Your task to perform on an android device: toggle data saver in the chrome app Image 0: 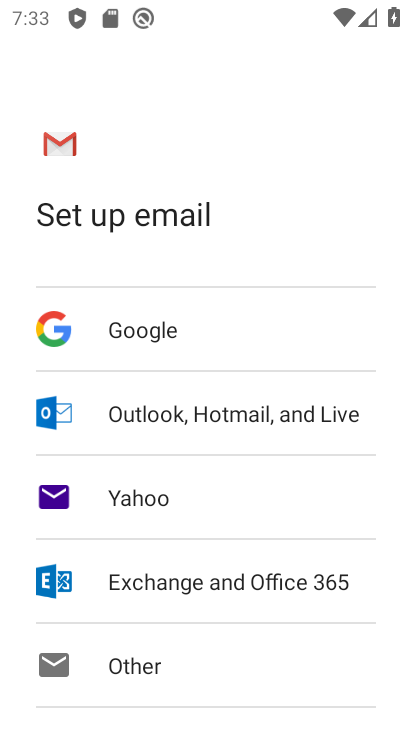
Step 0: press home button
Your task to perform on an android device: toggle data saver in the chrome app Image 1: 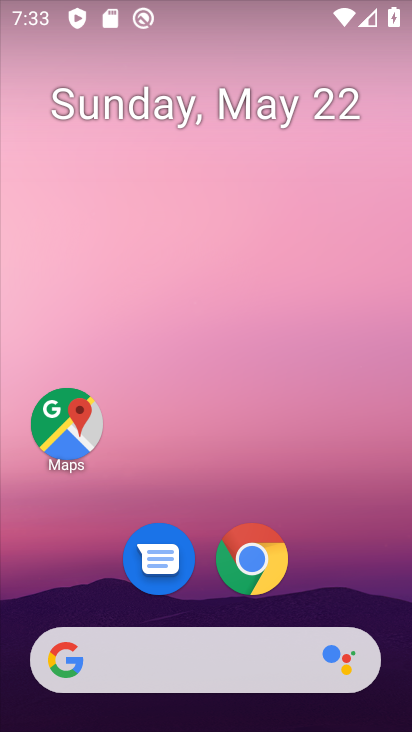
Step 1: click (247, 582)
Your task to perform on an android device: toggle data saver in the chrome app Image 2: 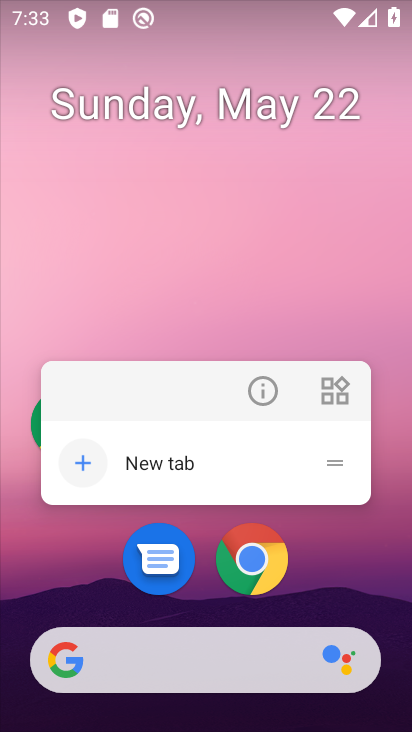
Step 2: click (256, 565)
Your task to perform on an android device: toggle data saver in the chrome app Image 3: 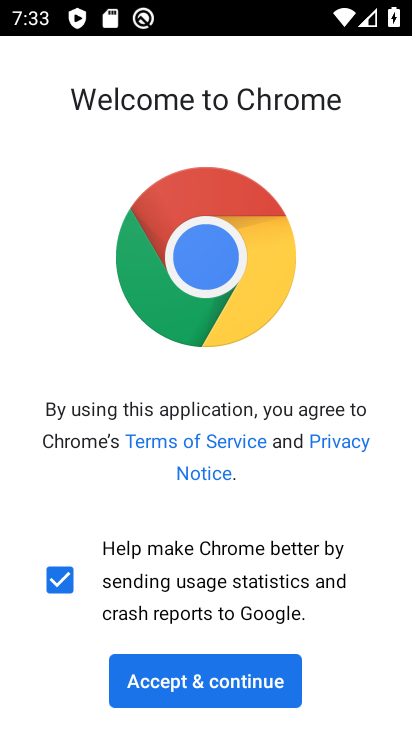
Step 3: click (218, 687)
Your task to perform on an android device: toggle data saver in the chrome app Image 4: 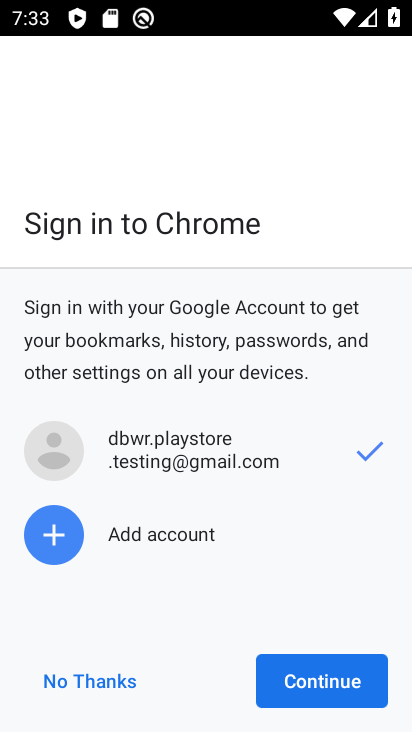
Step 4: click (324, 675)
Your task to perform on an android device: toggle data saver in the chrome app Image 5: 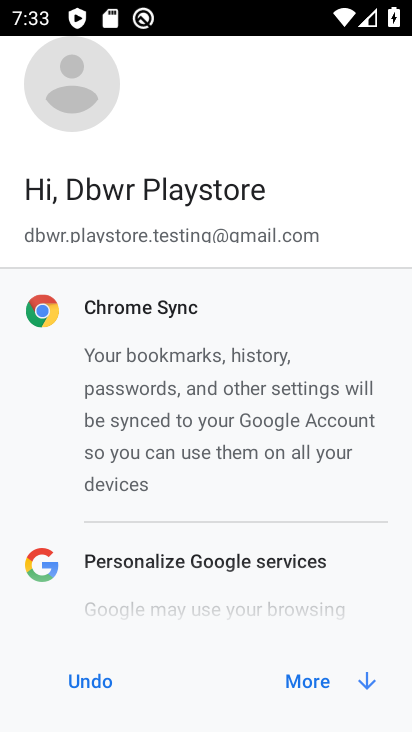
Step 5: click (324, 674)
Your task to perform on an android device: toggle data saver in the chrome app Image 6: 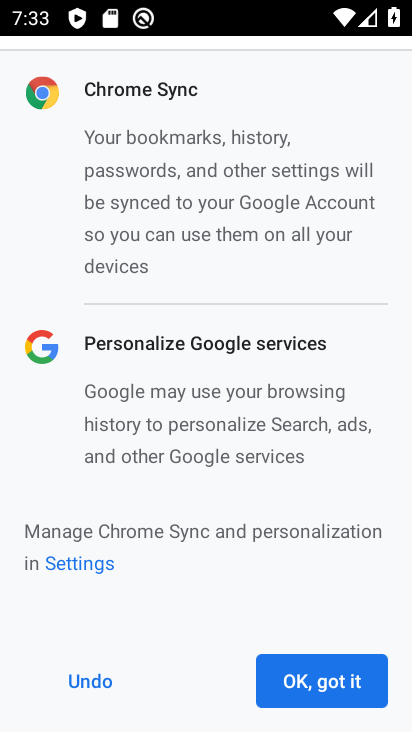
Step 6: click (324, 674)
Your task to perform on an android device: toggle data saver in the chrome app Image 7: 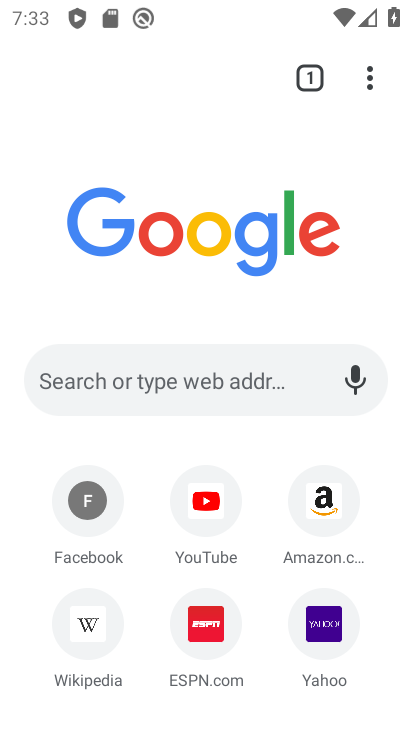
Step 7: drag from (366, 85) to (167, 633)
Your task to perform on an android device: toggle data saver in the chrome app Image 8: 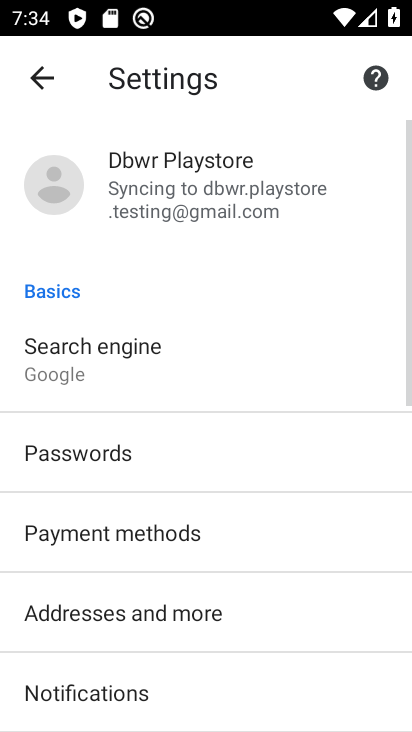
Step 8: drag from (224, 624) to (365, 200)
Your task to perform on an android device: toggle data saver in the chrome app Image 9: 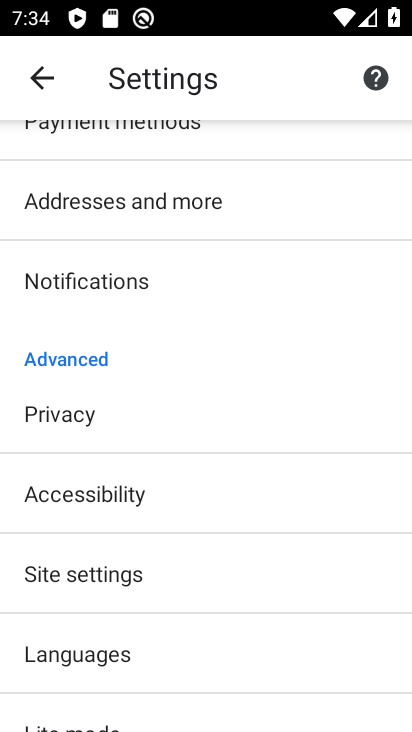
Step 9: drag from (147, 605) to (258, 346)
Your task to perform on an android device: toggle data saver in the chrome app Image 10: 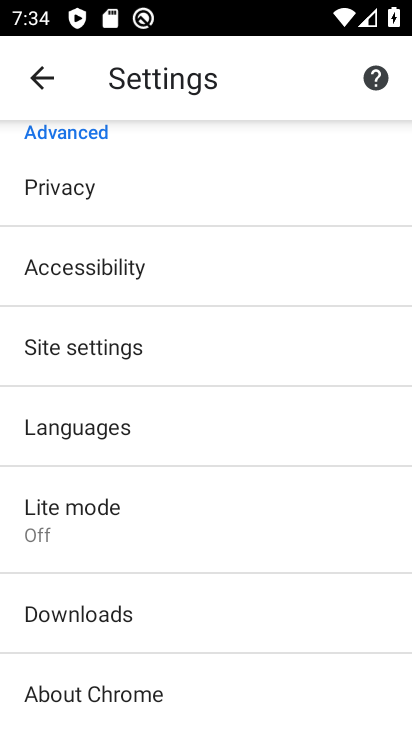
Step 10: click (120, 506)
Your task to perform on an android device: toggle data saver in the chrome app Image 11: 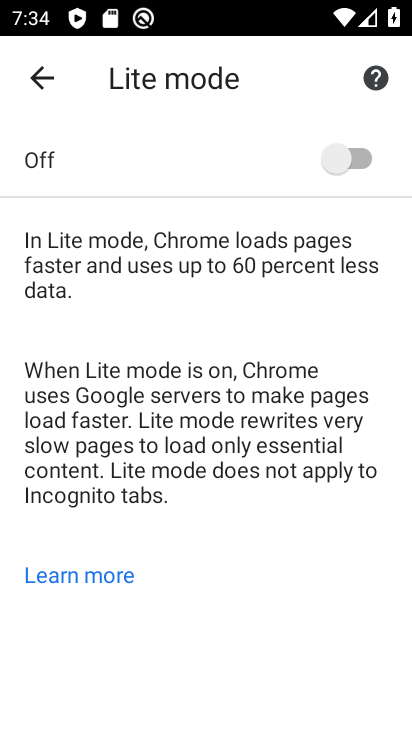
Step 11: click (360, 155)
Your task to perform on an android device: toggle data saver in the chrome app Image 12: 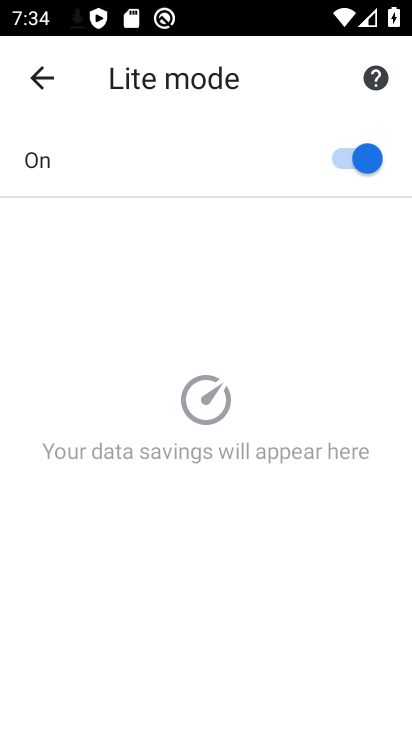
Step 12: task complete